Your task to perform on an android device: open app "Spotify: Music and Podcasts" (install if not already installed) Image 0: 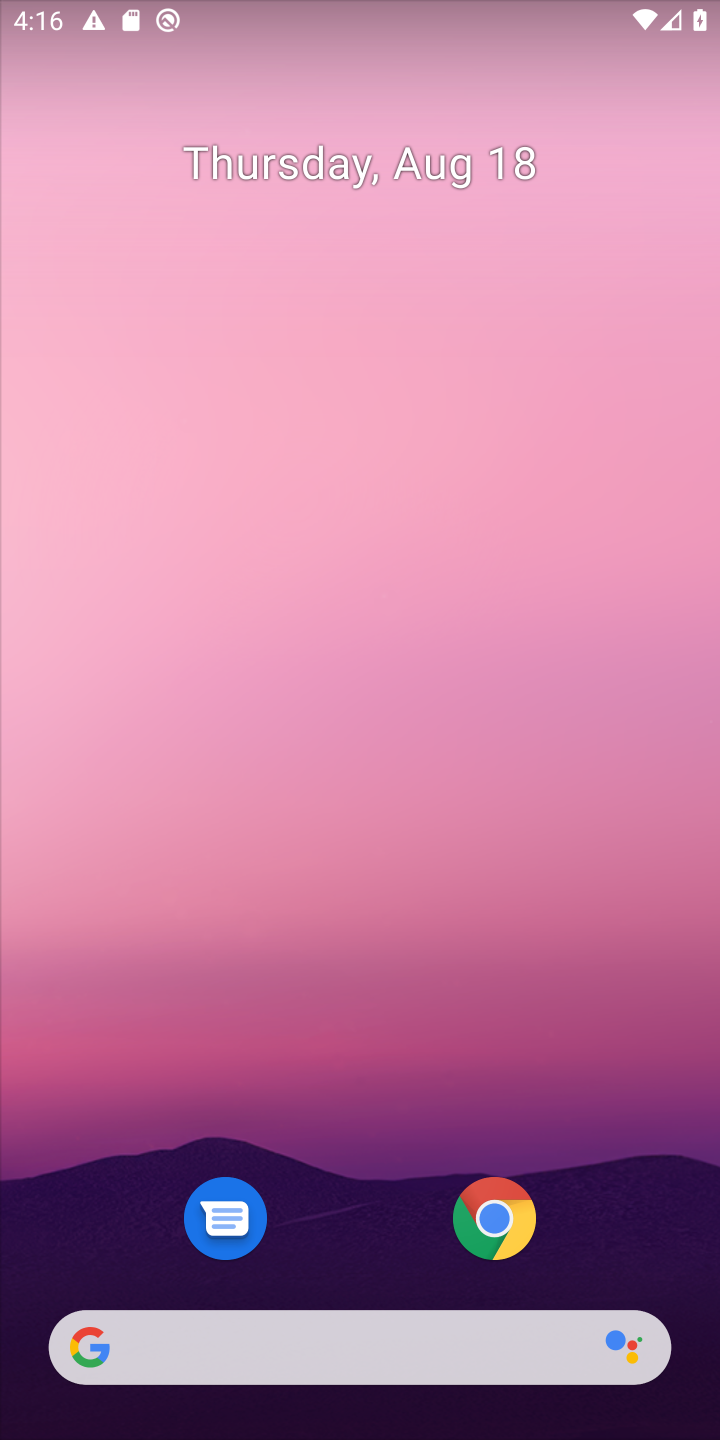
Step 0: drag from (364, 1114) to (344, 419)
Your task to perform on an android device: open app "Spotify: Music and Podcasts" (install if not already installed) Image 1: 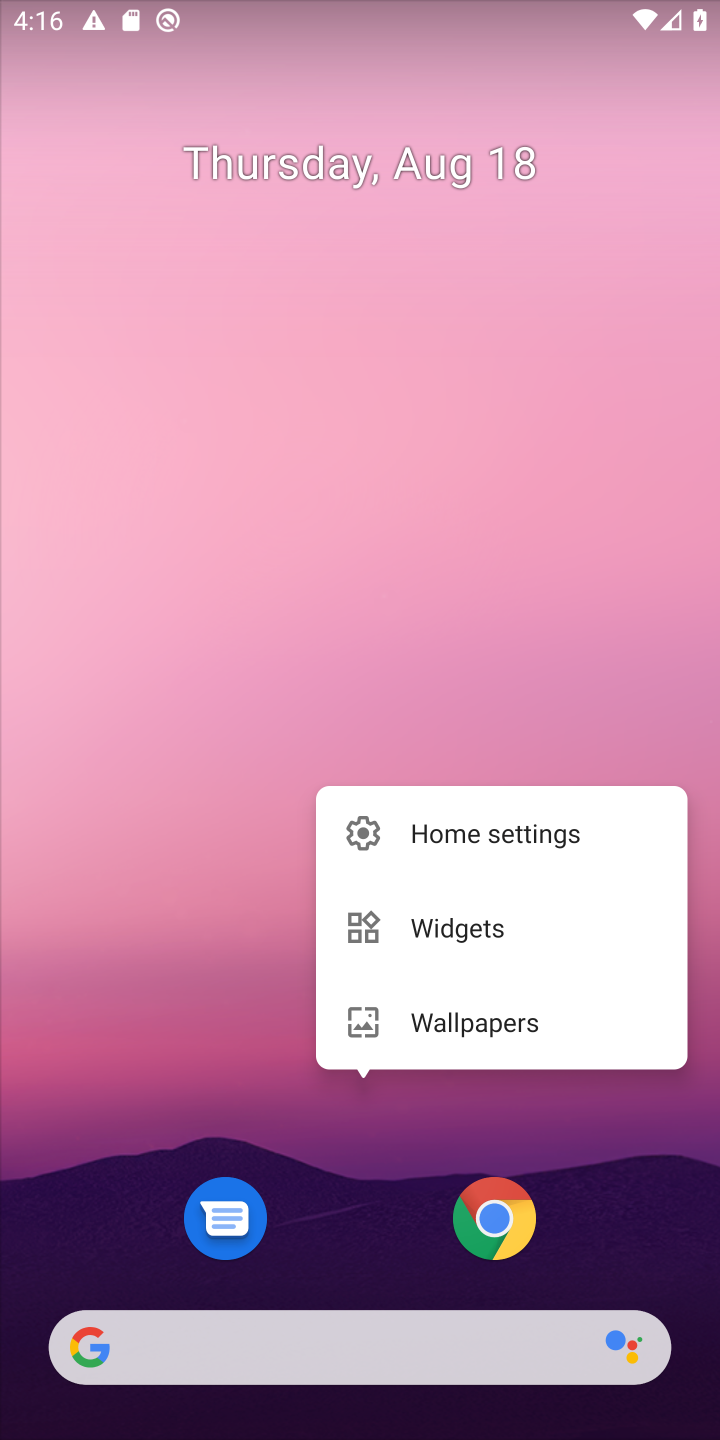
Step 1: click (344, 419)
Your task to perform on an android device: open app "Spotify: Music and Podcasts" (install if not already installed) Image 2: 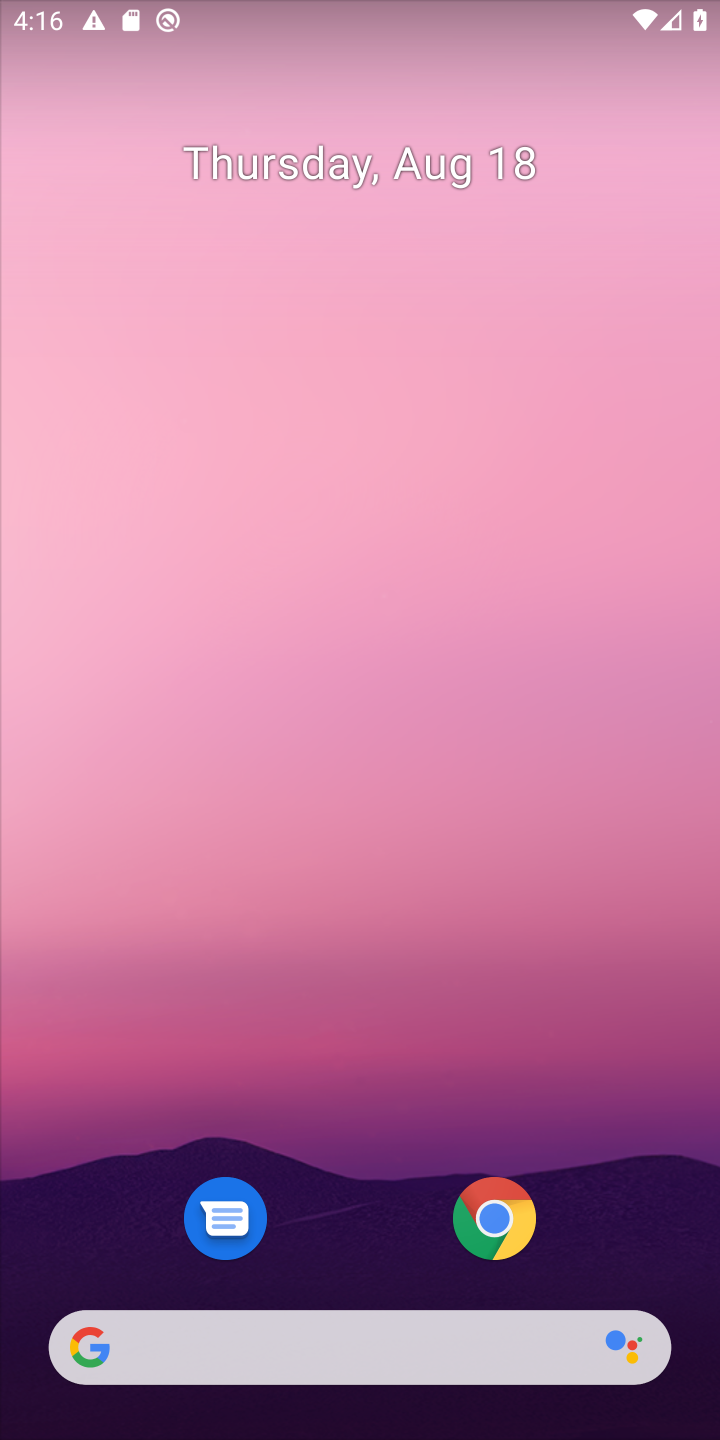
Step 2: drag from (360, 1115) to (384, 298)
Your task to perform on an android device: open app "Spotify: Music and Podcasts" (install if not already installed) Image 3: 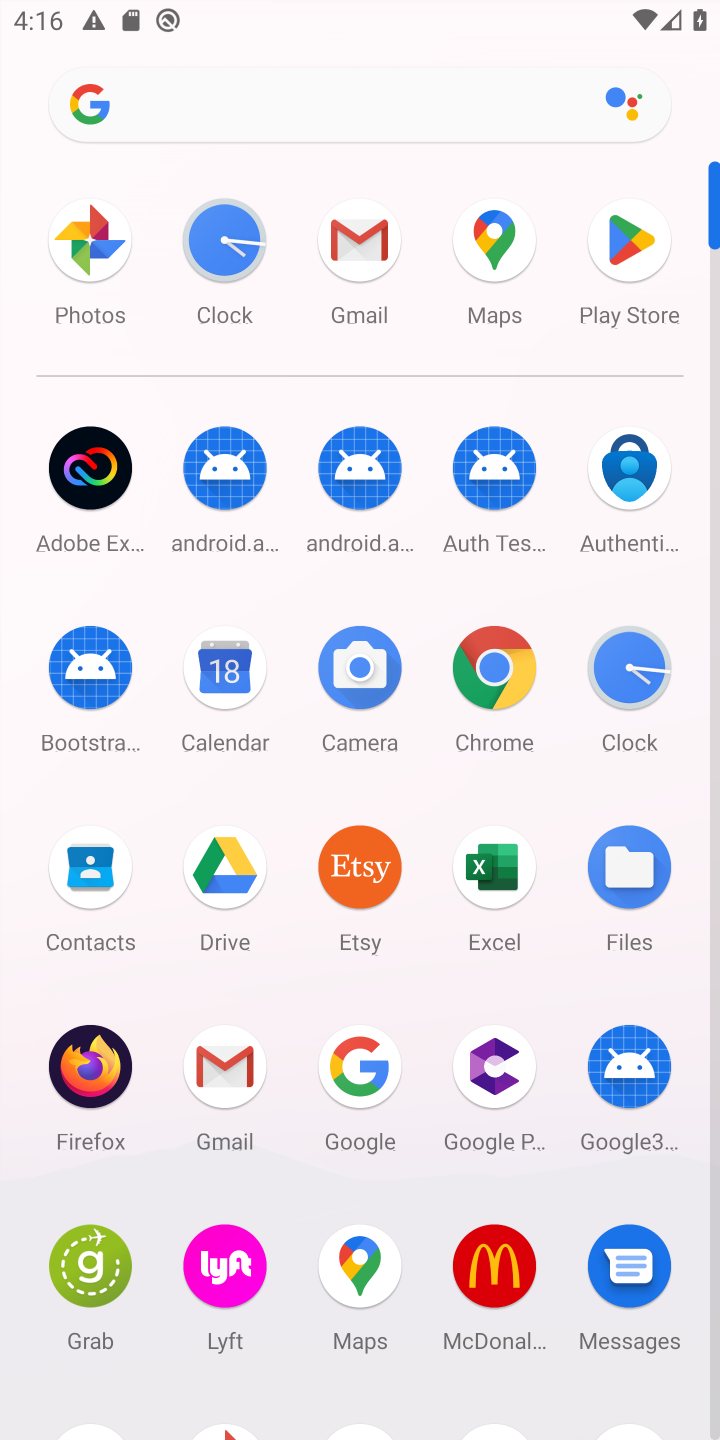
Step 3: click (599, 248)
Your task to perform on an android device: open app "Spotify: Music and Podcasts" (install if not already installed) Image 4: 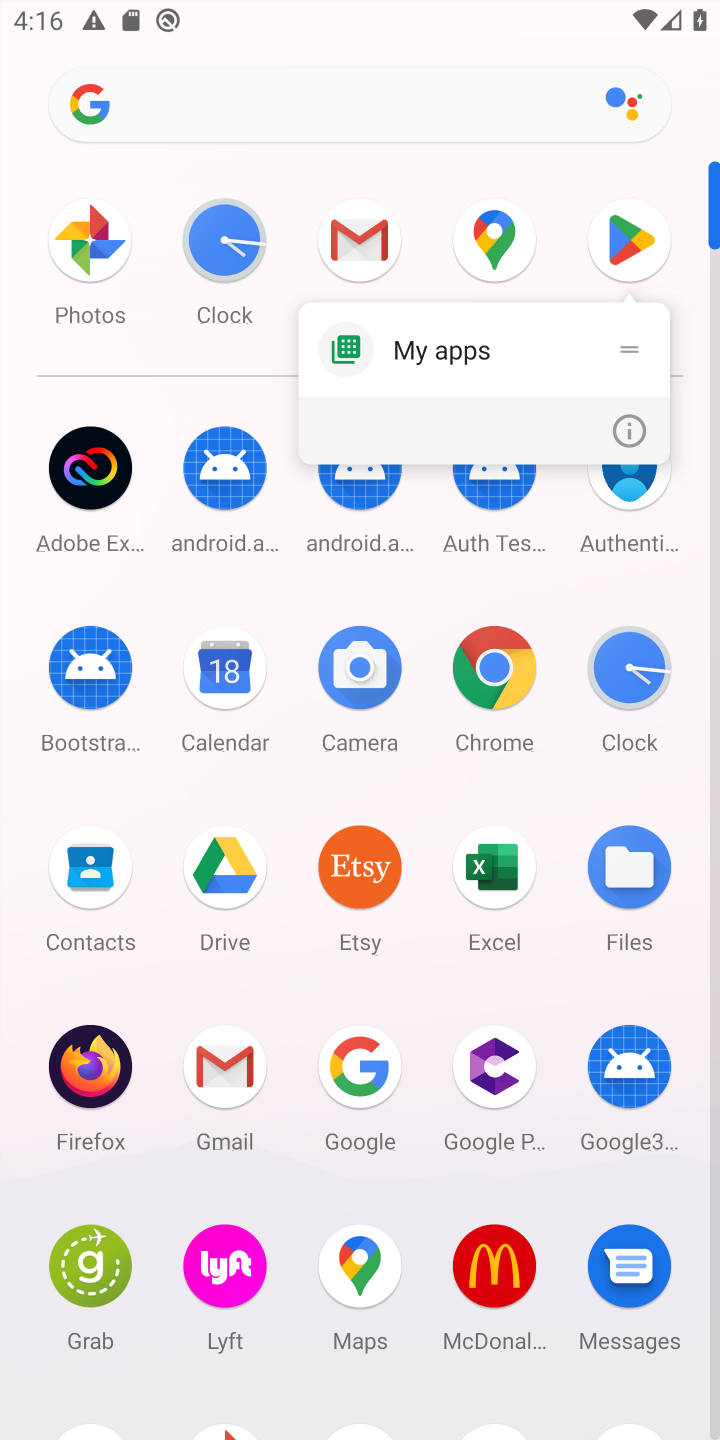
Step 4: click (599, 248)
Your task to perform on an android device: open app "Spotify: Music and Podcasts" (install if not already installed) Image 5: 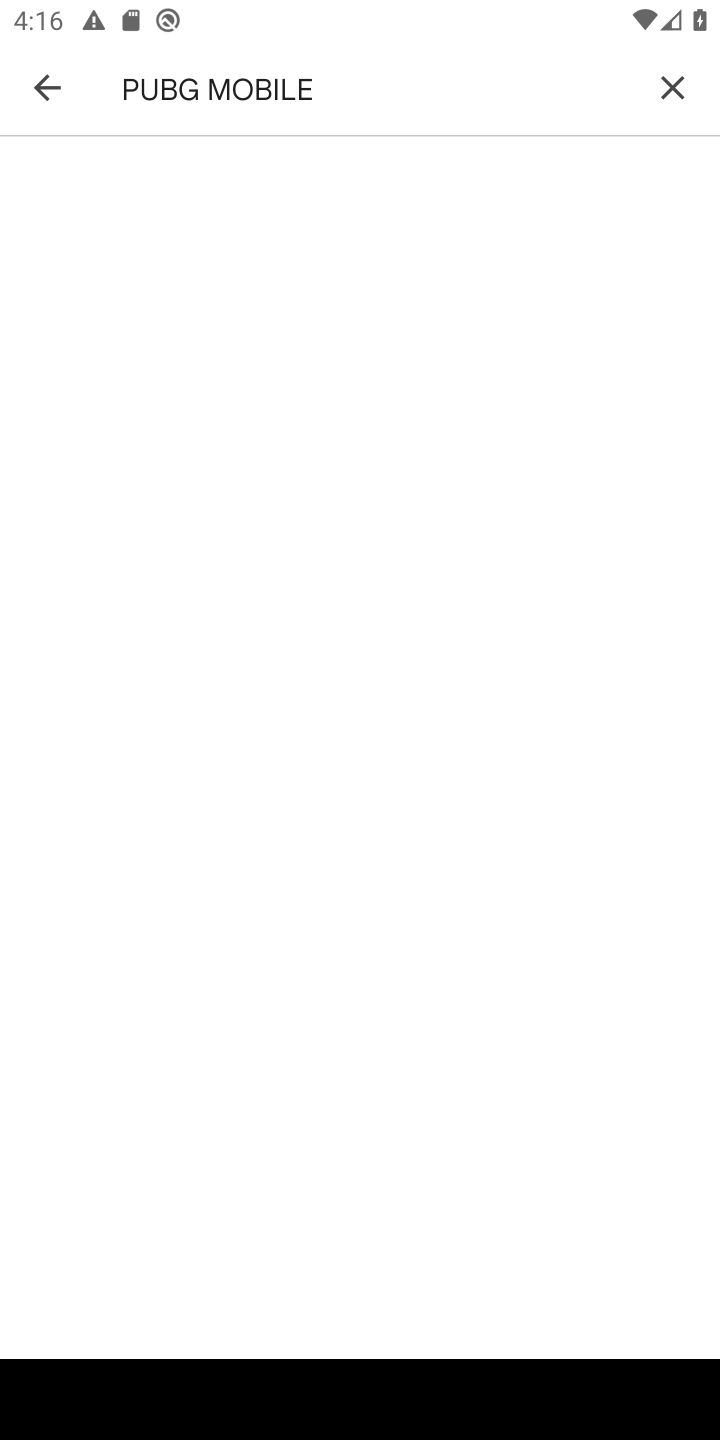
Step 5: click (671, 83)
Your task to perform on an android device: open app "Spotify: Music and Podcasts" (install if not already installed) Image 6: 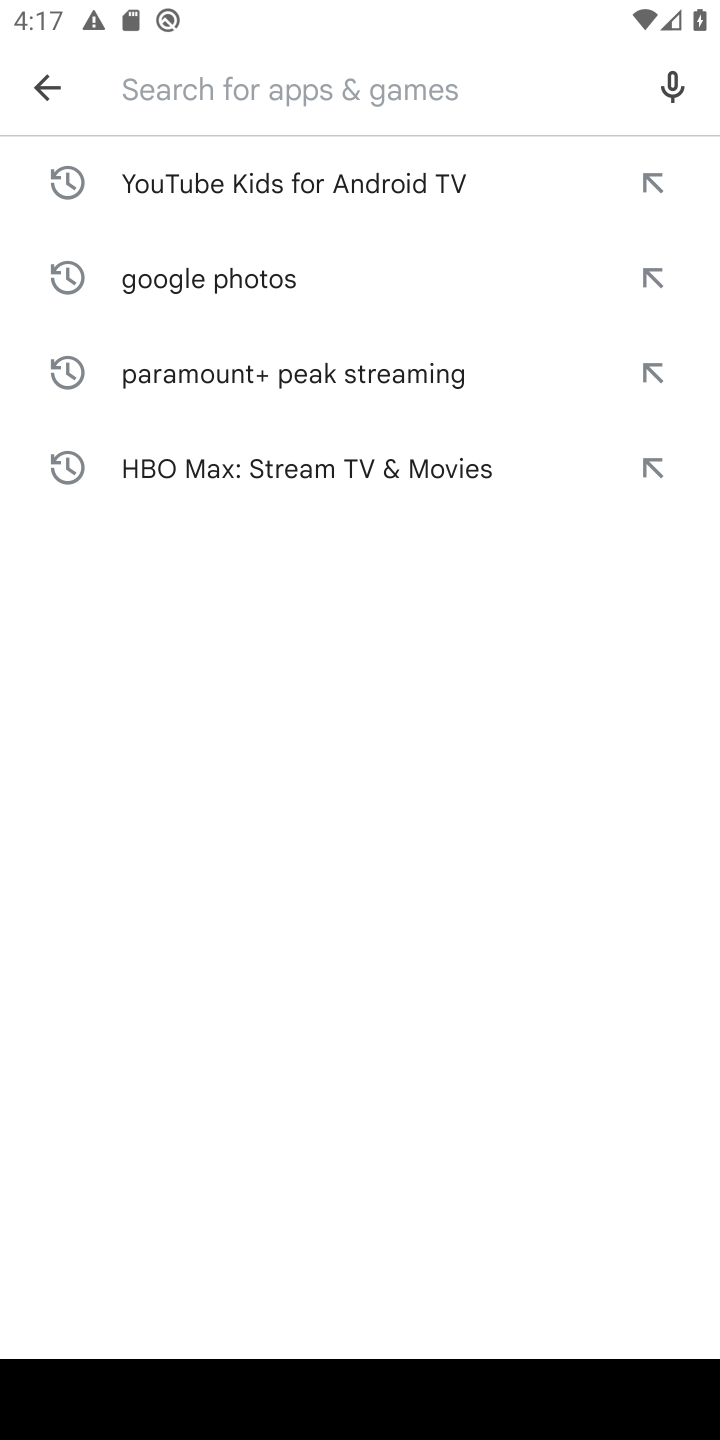
Step 6: type "Spotify: Music and Podcasts"
Your task to perform on an android device: open app "Spotify: Music and Podcasts" (install if not already installed) Image 7: 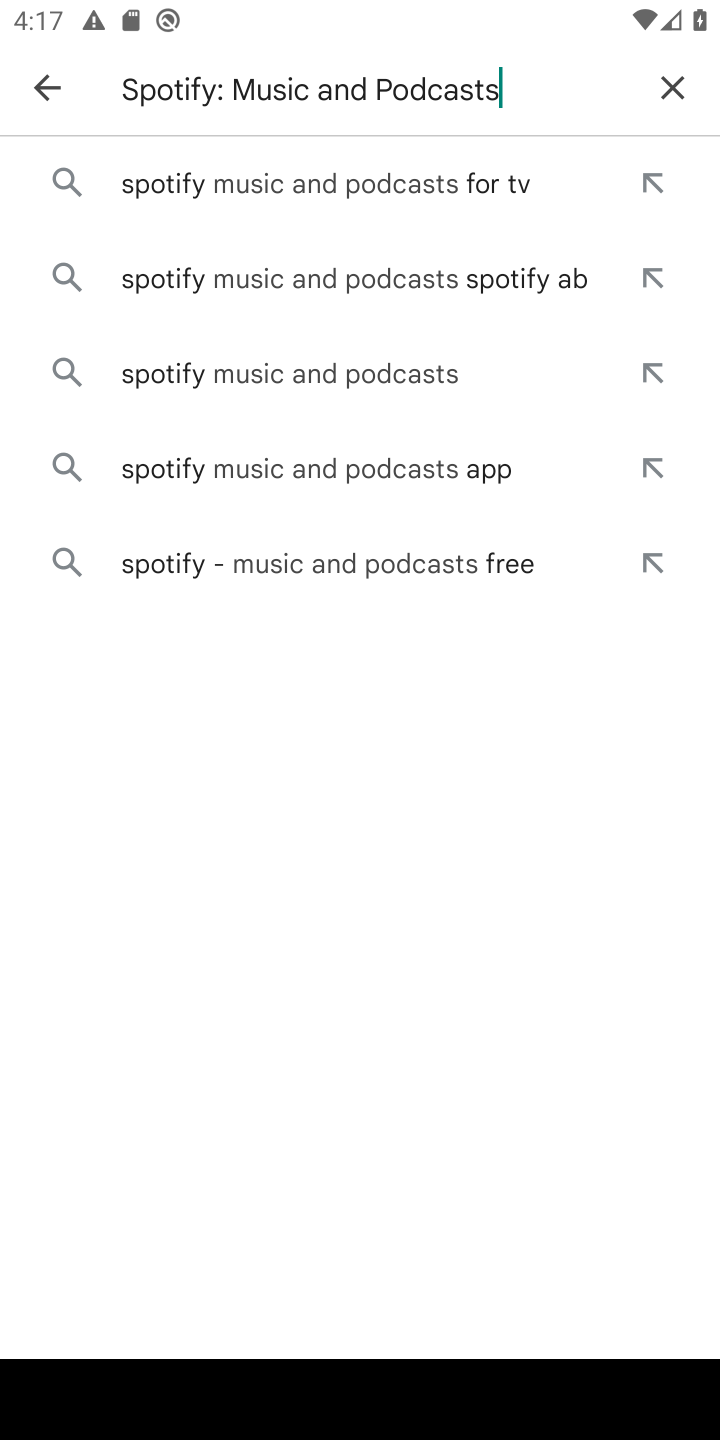
Step 7: type ""
Your task to perform on an android device: open app "Spotify: Music and Podcasts" (install if not already installed) Image 8: 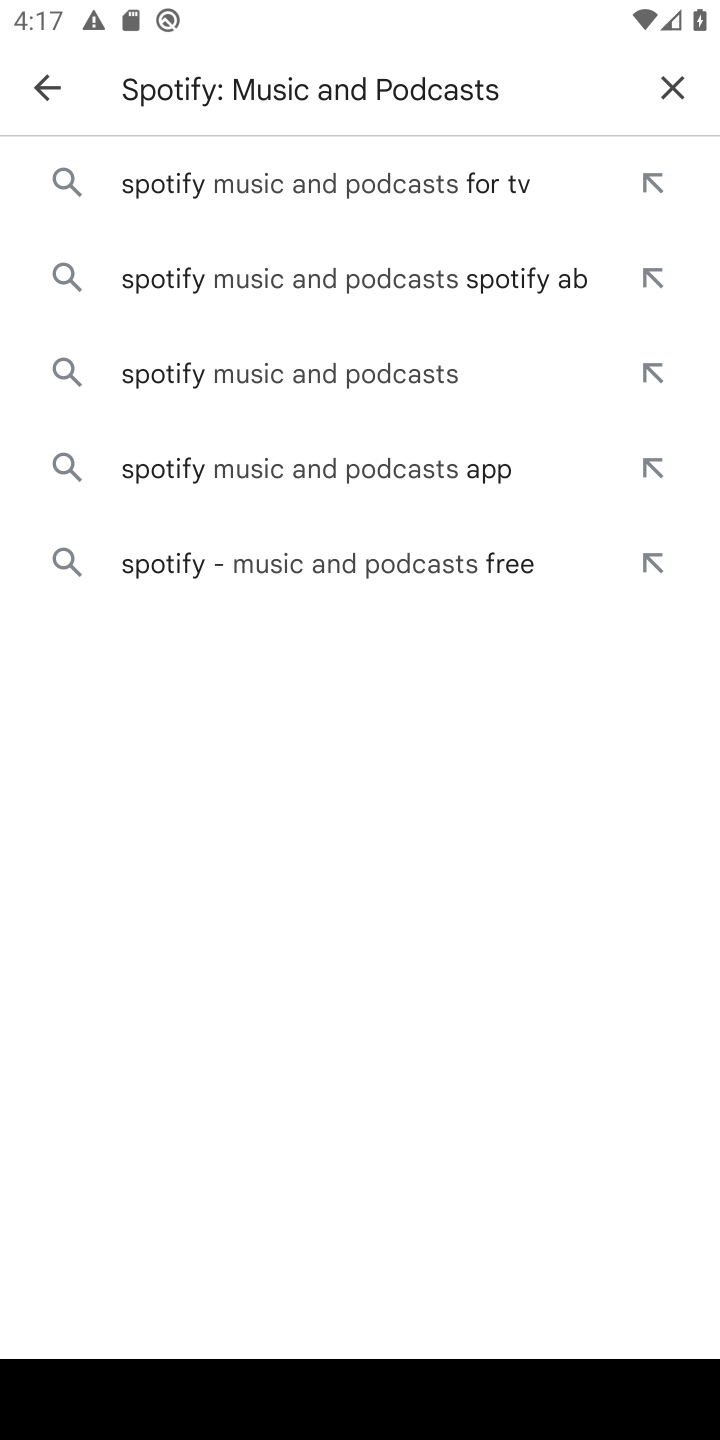
Step 8: click (283, 190)
Your task to perform on an android device: open app "Spotify: Music and Podcasts" (install if not already installed) Image 9: 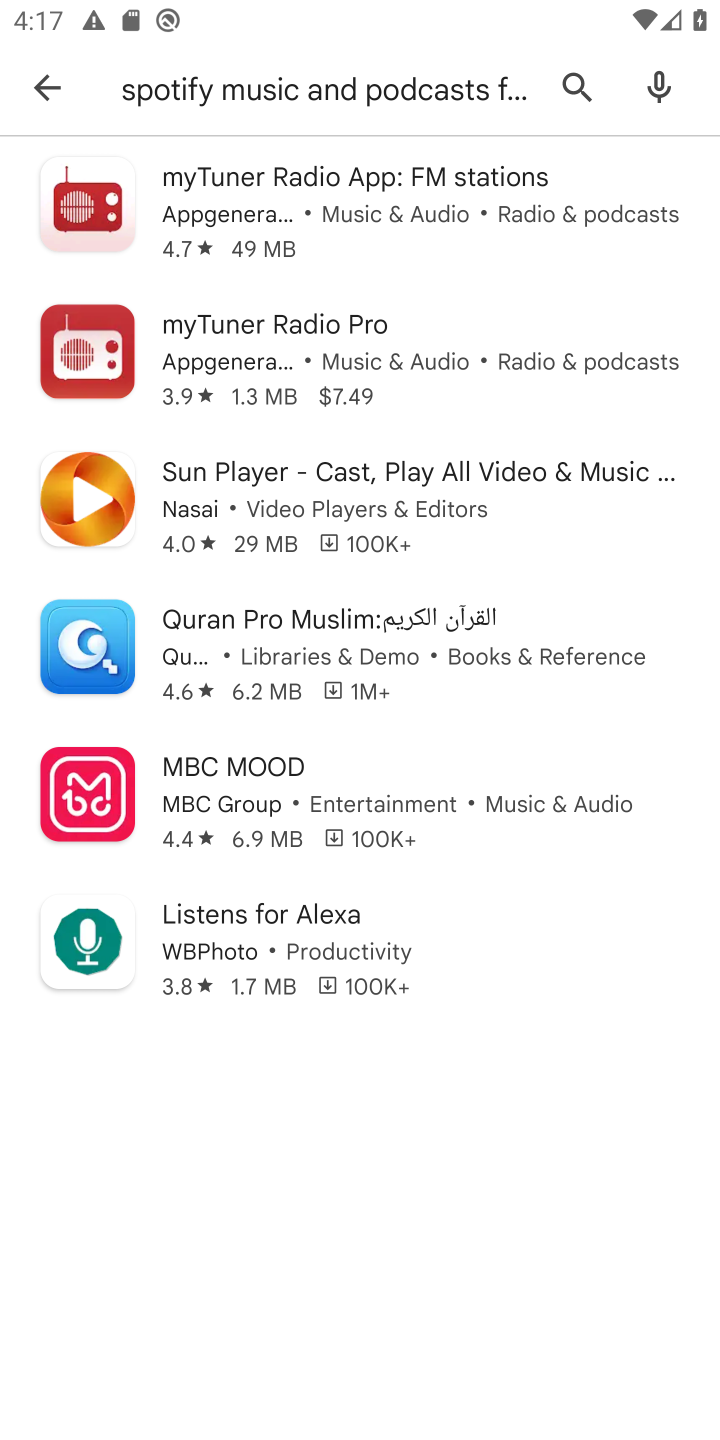
Step 9: task complete